Your task to perform on an android device: Go to internet settings Image 0: 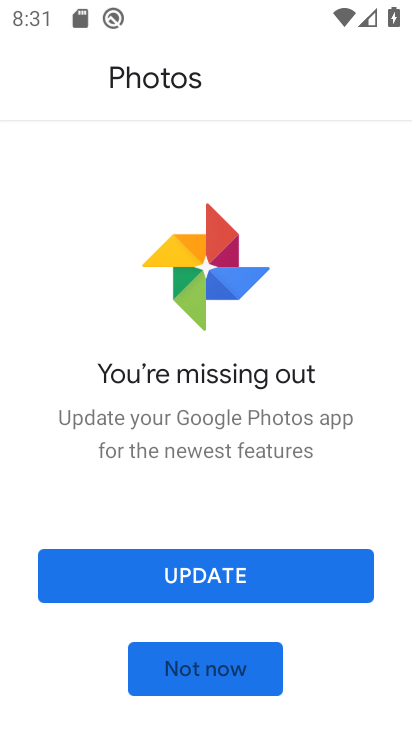
Step 0: press home button
Your task to perform on an android device: Go to internet settings Image 1: 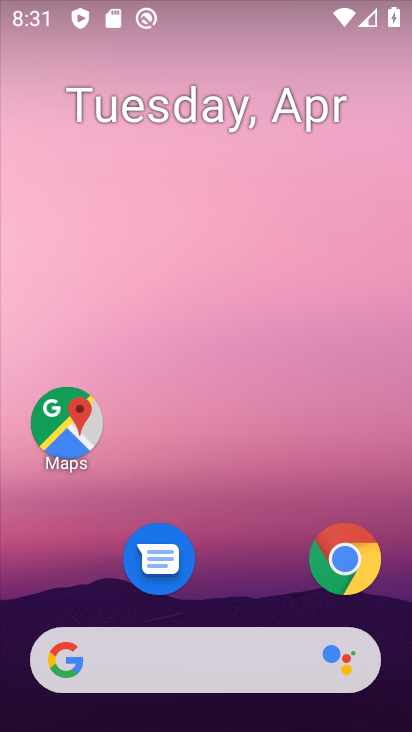
Step 1: drag from (218, 693) to (246, 55)
Your task to perform on an android device: Go to internet settings Image 2: 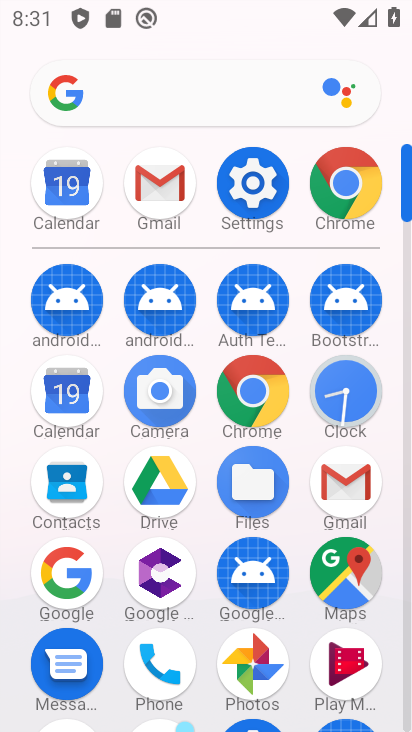
Step 2: click (260, 205)
Your task to perform on an android device: Go to internet settings Image 3: 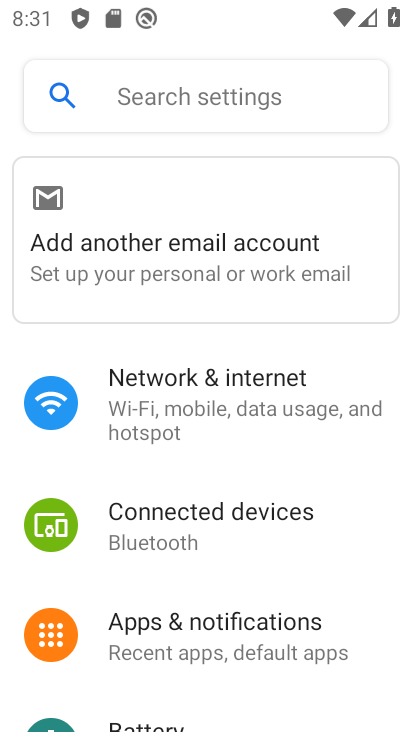
Step 3: click (175, 401)
Your task to perform on an android device: Go to internet settings Image 4: 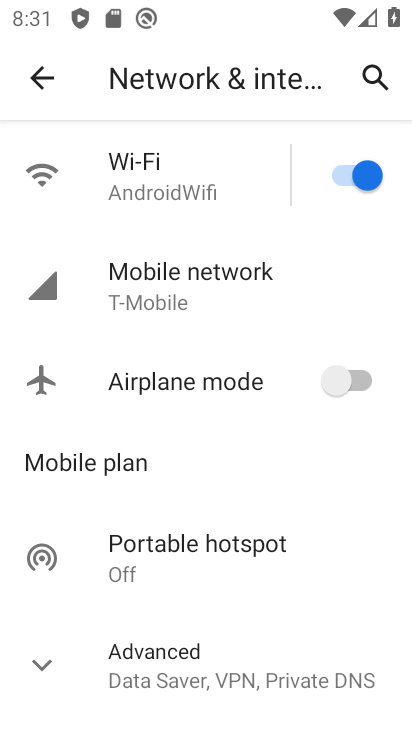
Step 4: task complete